Your task to perform on an android device: install app "Google Sheets" Image 0: 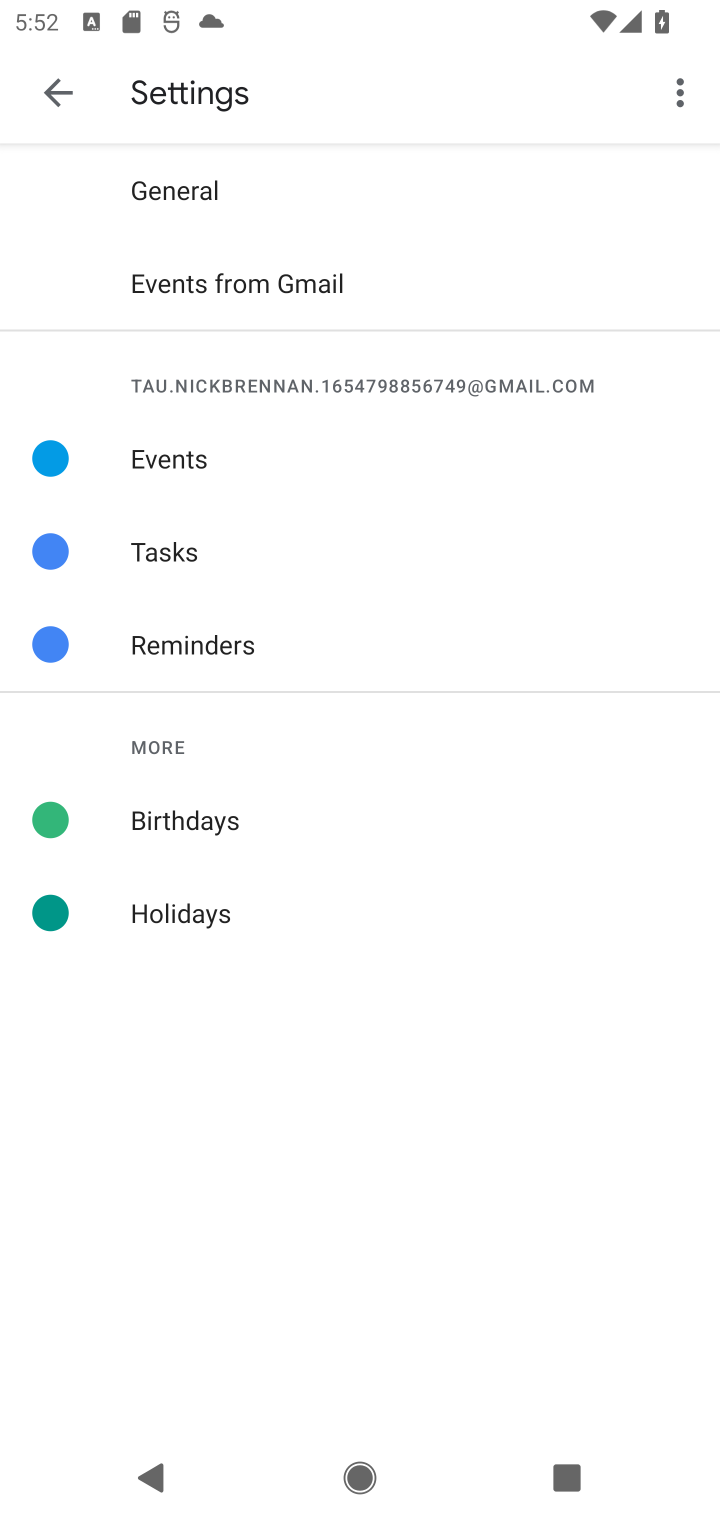
Step 0: press home button
Your task to perform on an android device: install app "Google Sheets" Image 1: 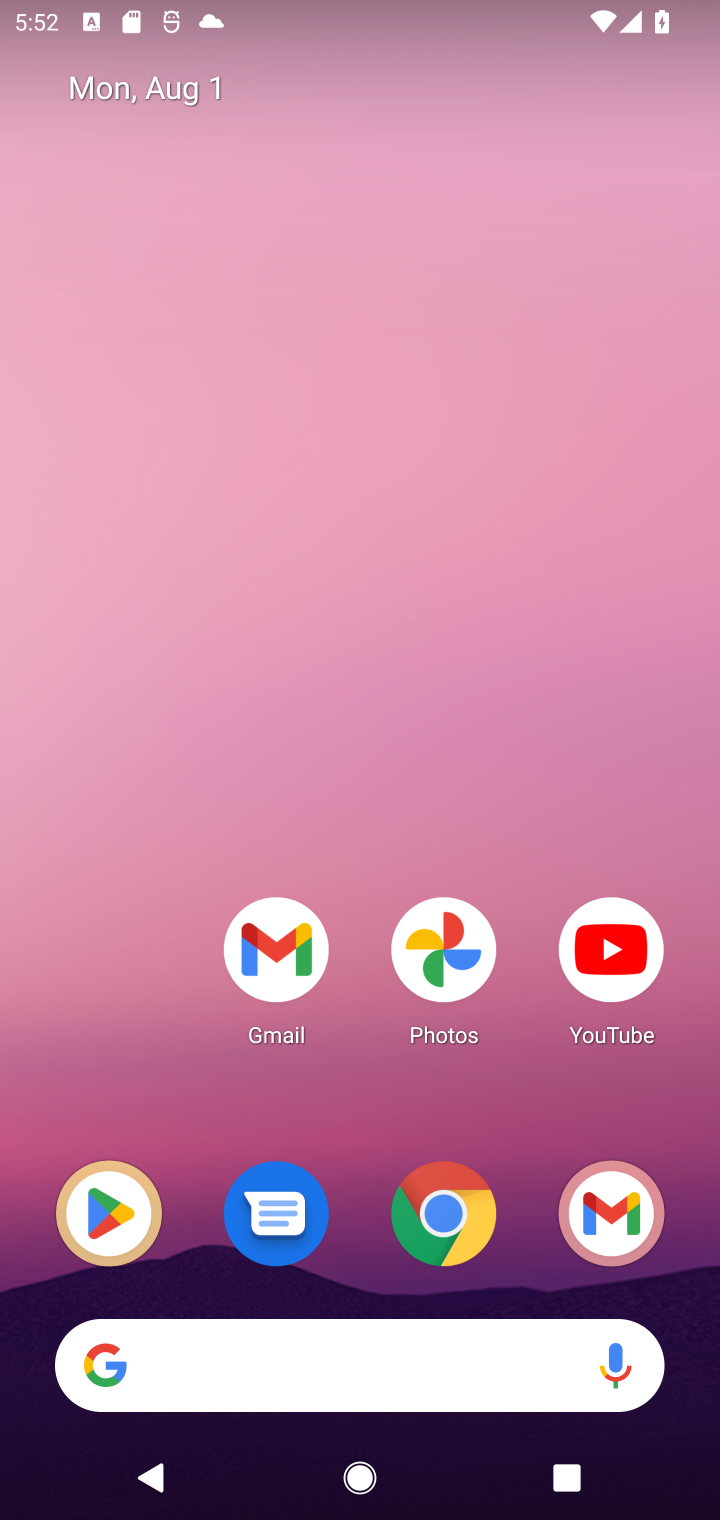
Step 1: drag from (355, 1105) to (359, 81)
Your task to perform on an android device: install app "Google Sheets" Image 2: 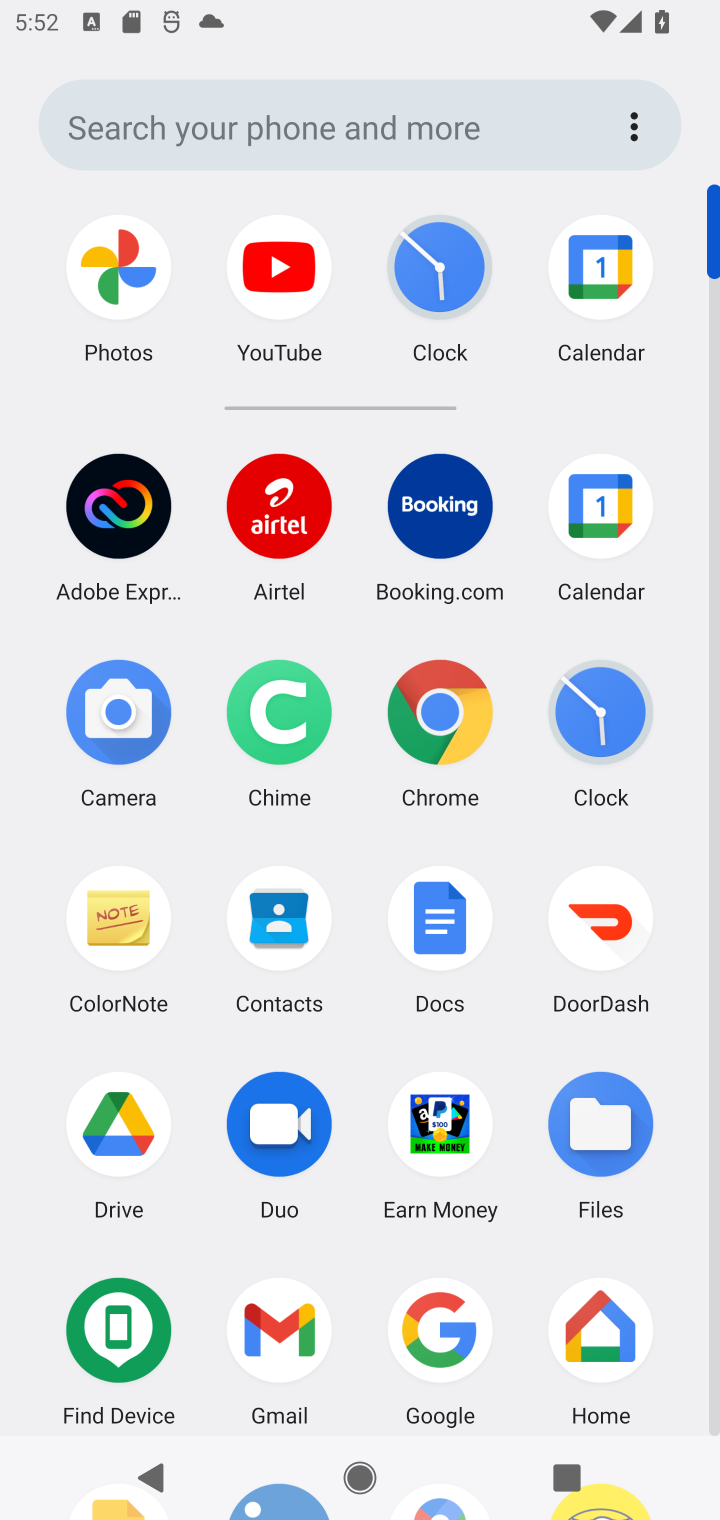
Step 2: drag from (511, 982) to (482, 467)
Your task to perform on an android device: install app "Google Sheets" Image 3: 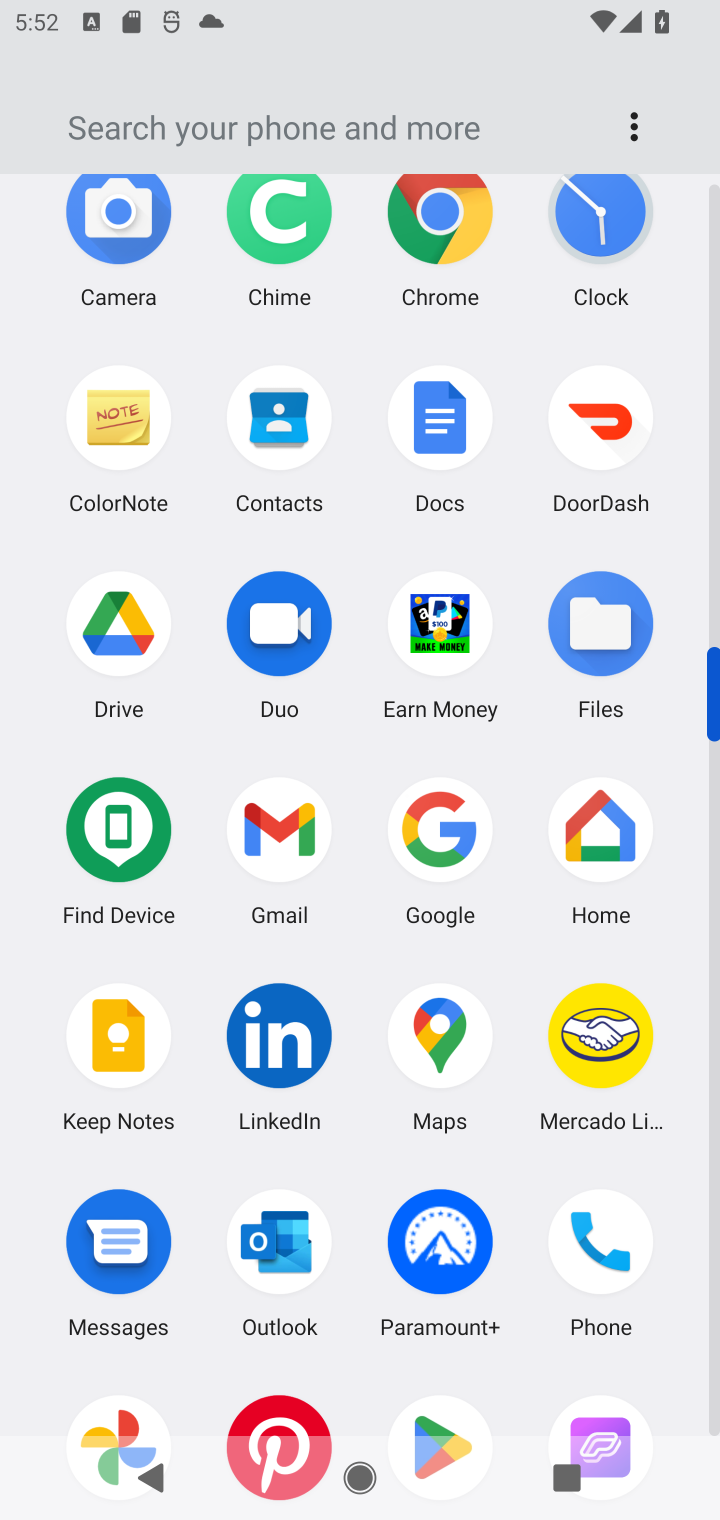
Step 3: drag from (365, 1125) to (382, 441)
Your task to perform on an android device: install app "Google Sheets" Image 4: 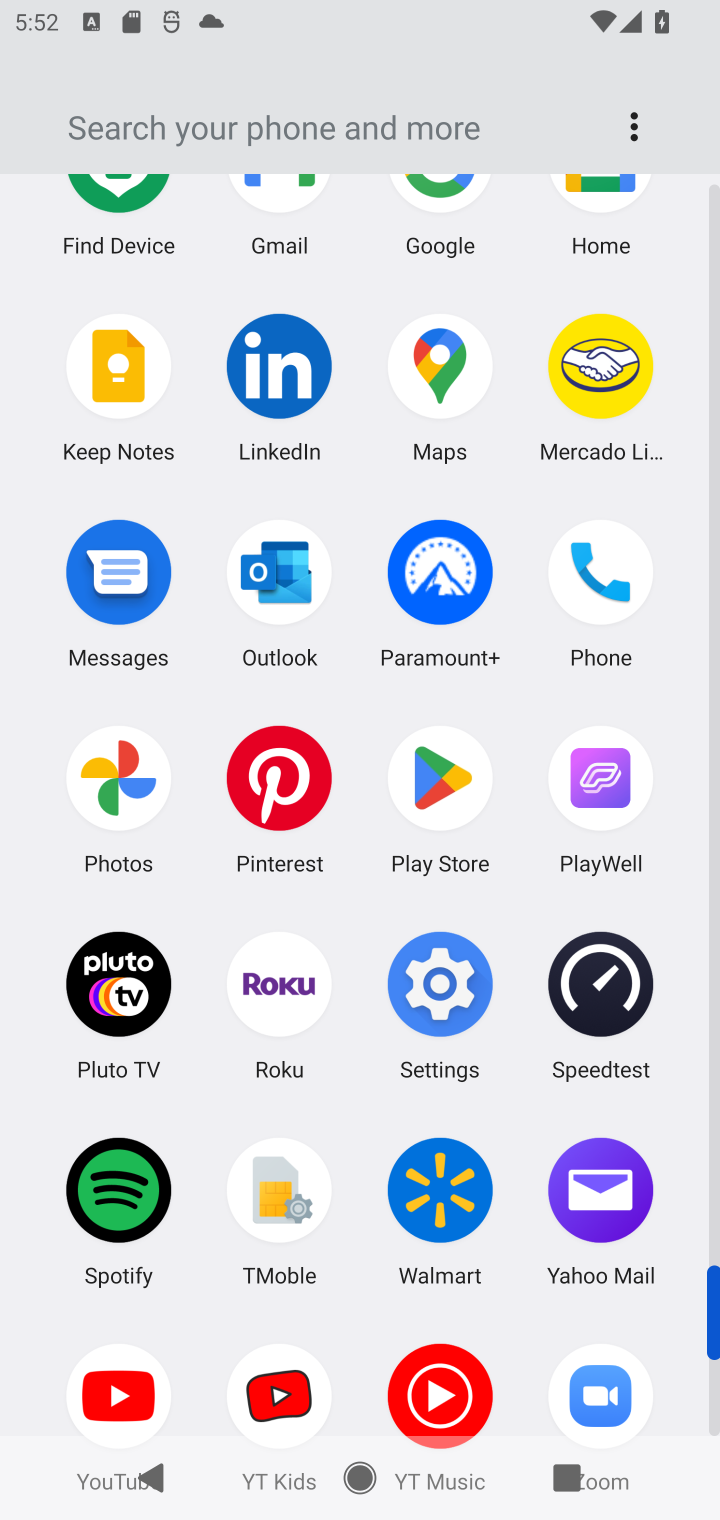
Step 4: click (442, 790)
Your task to perform on an android device: install app "Google Sheets" Image 5: 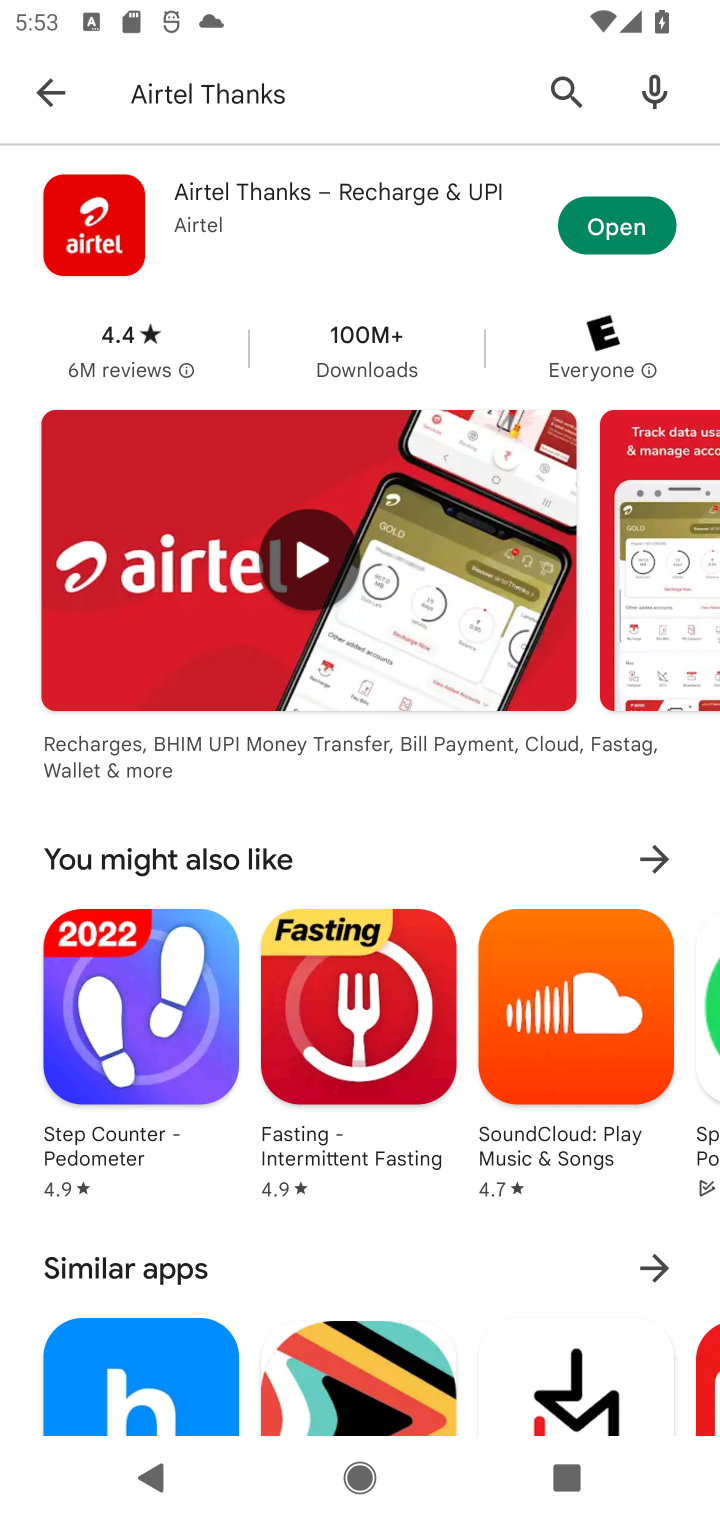
Step 5: click (328, 75)
Your task to perform on an android device: install app "Google Sheets" Image 6: 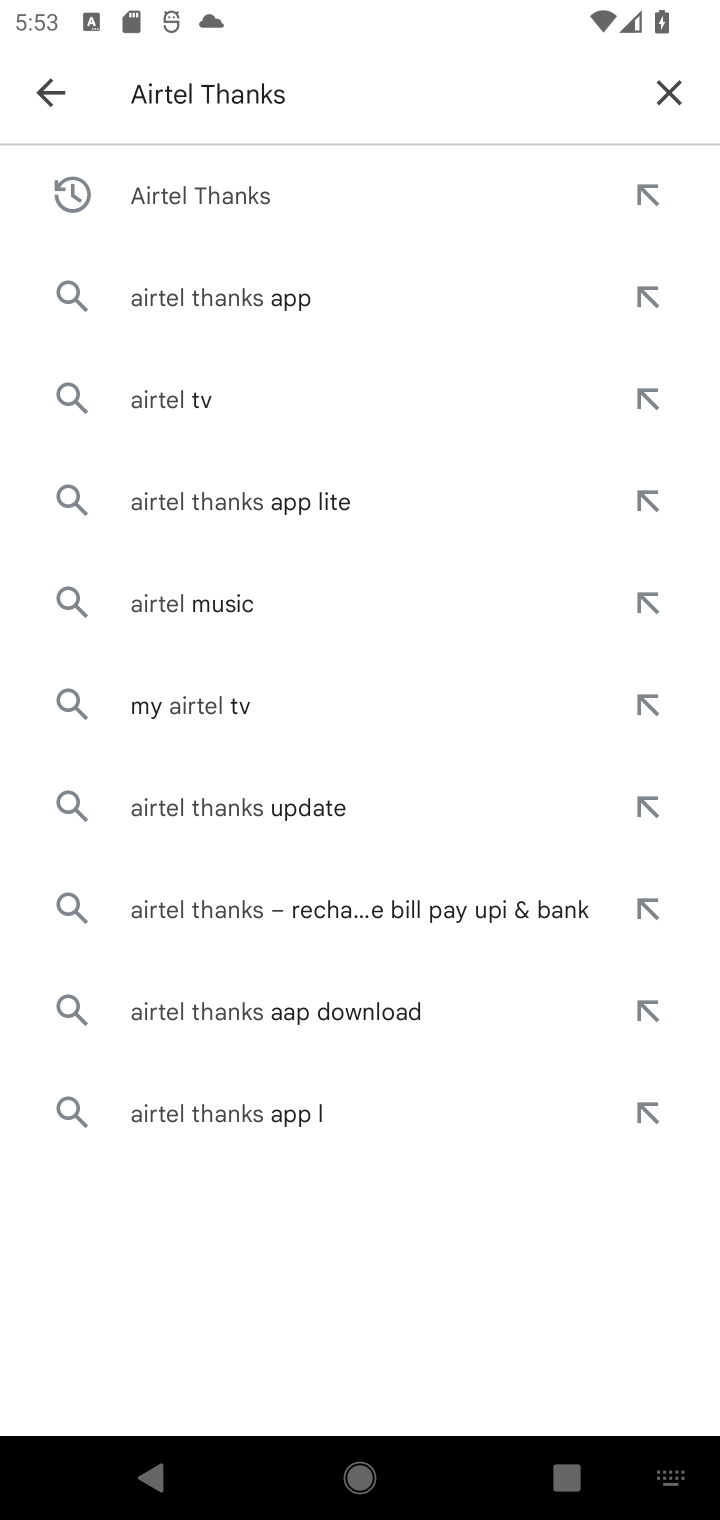
Step 6: click (669, 88)
Your task to perform on an android device: install app "Google Sheets" Image 7: 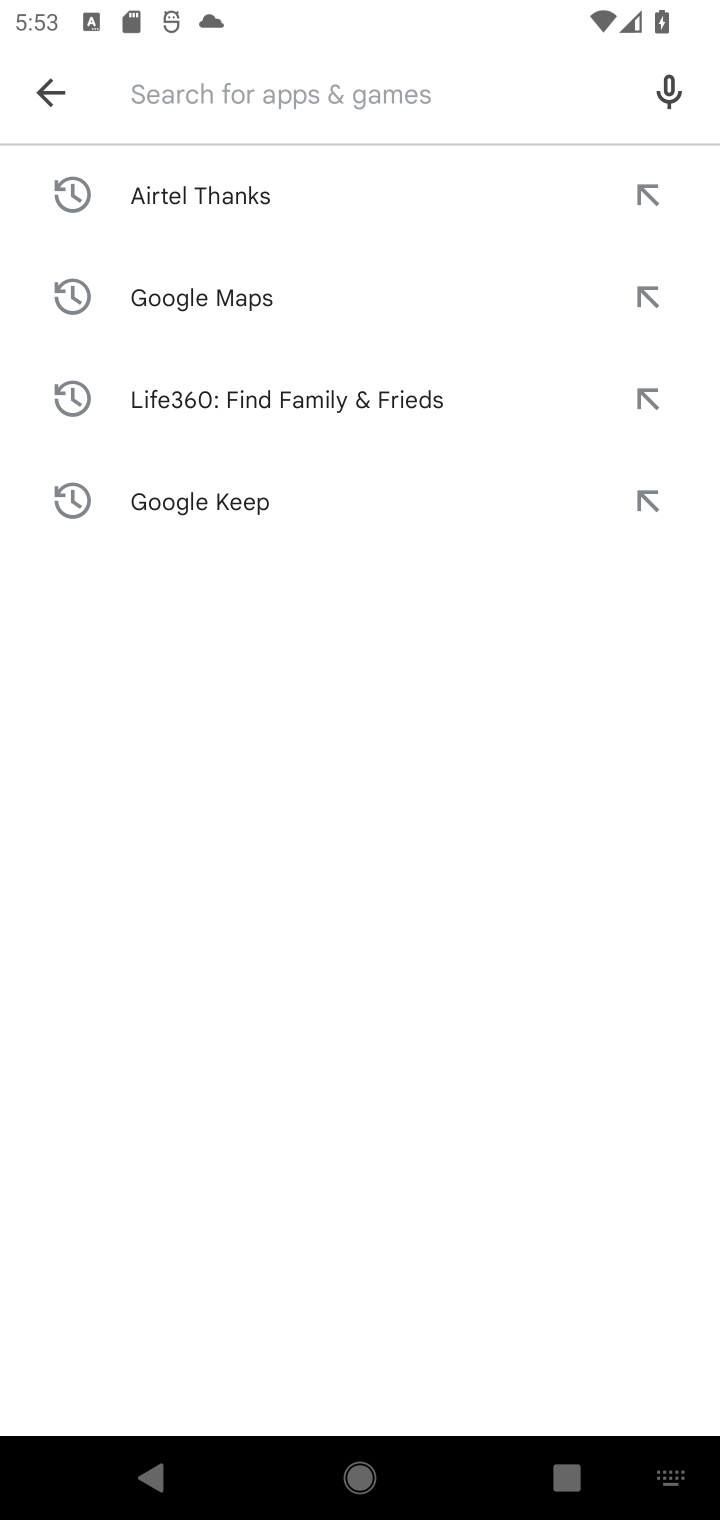
Step 7: type "Google Sheets"
Your task to perform on an android device: install app "Google Sheets" Image 8: 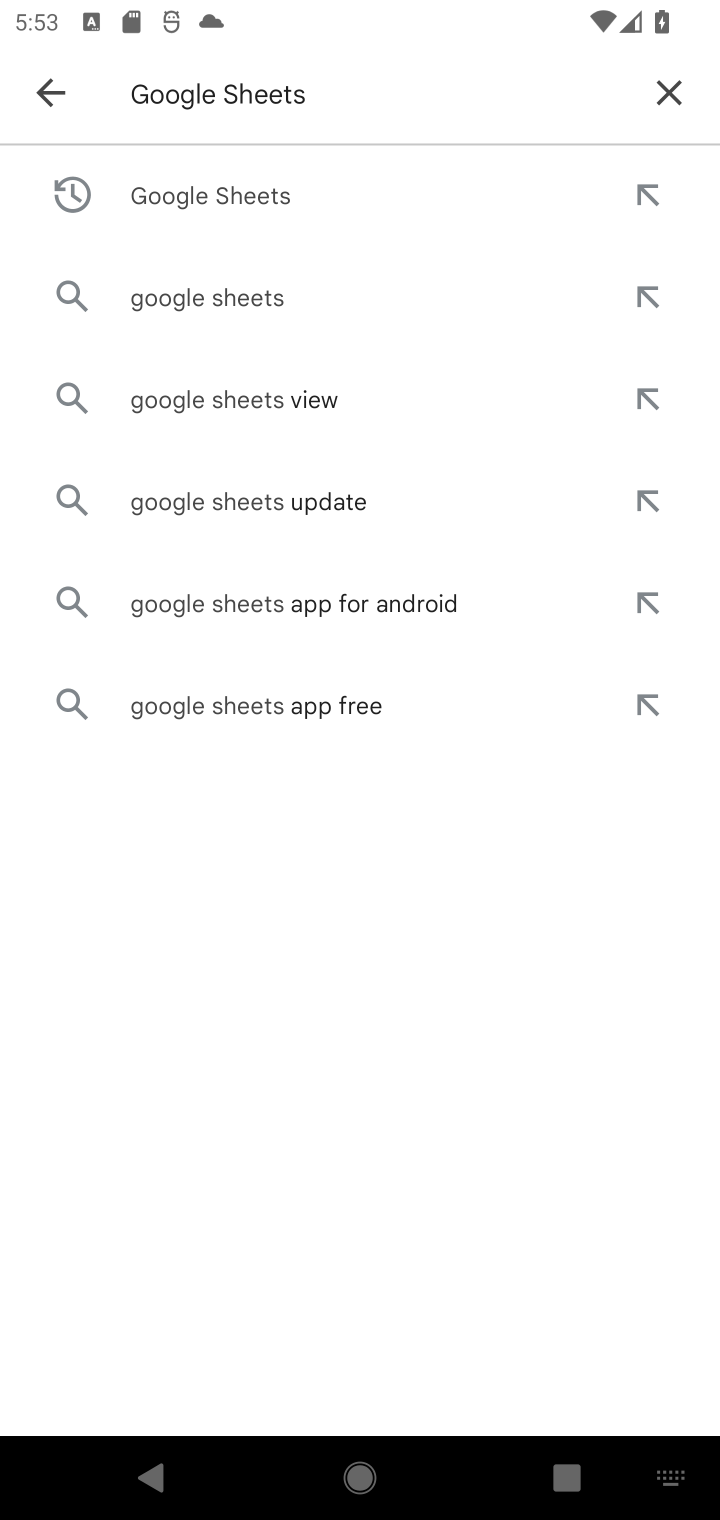
Step 8: press enter
Your task to perform on an android device: install app "Google Sheets" Image 9: 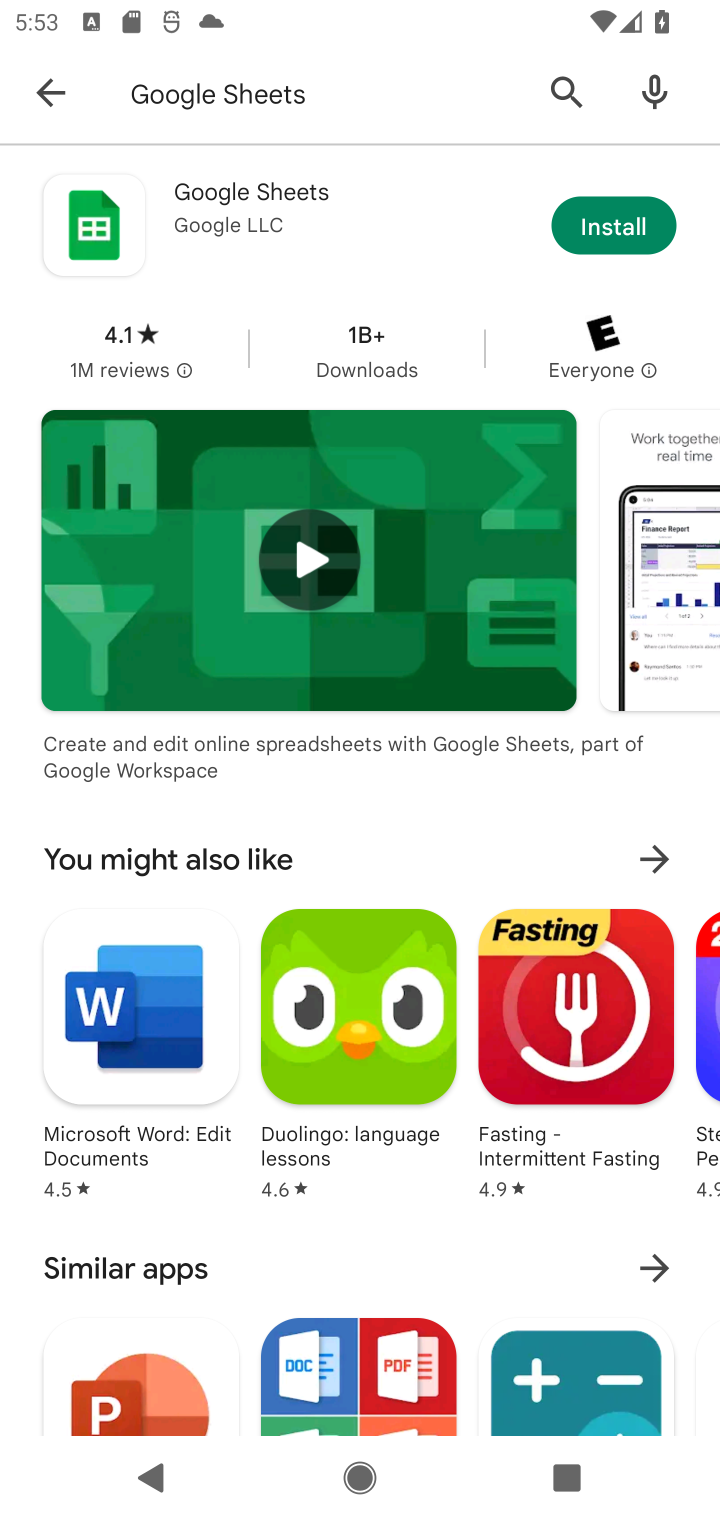
Step 9: click (613, 221)
Your task to perform on an android device: install app "Google Sheets" Image 10: 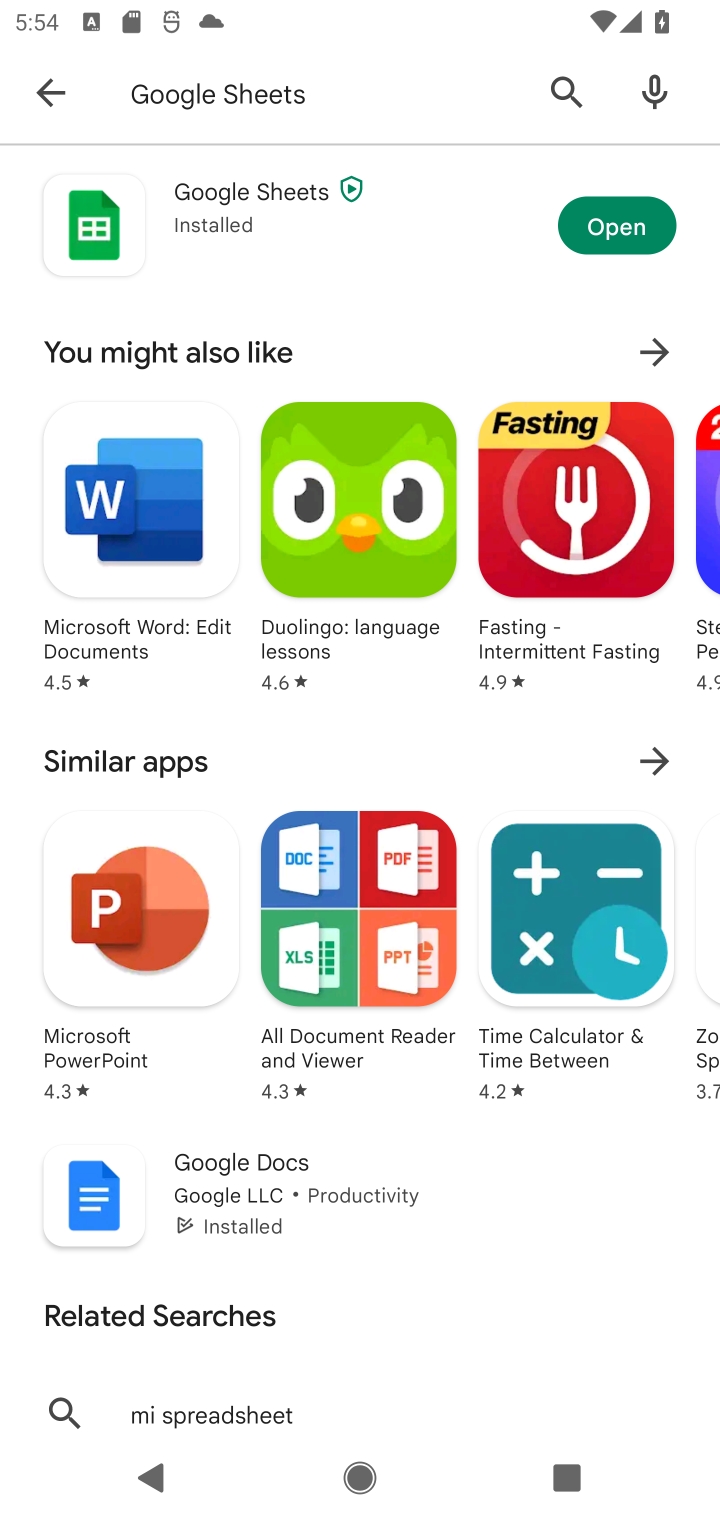
Step 10: task complete